Your task to perform on an android device: Go to Google maps Image 0: 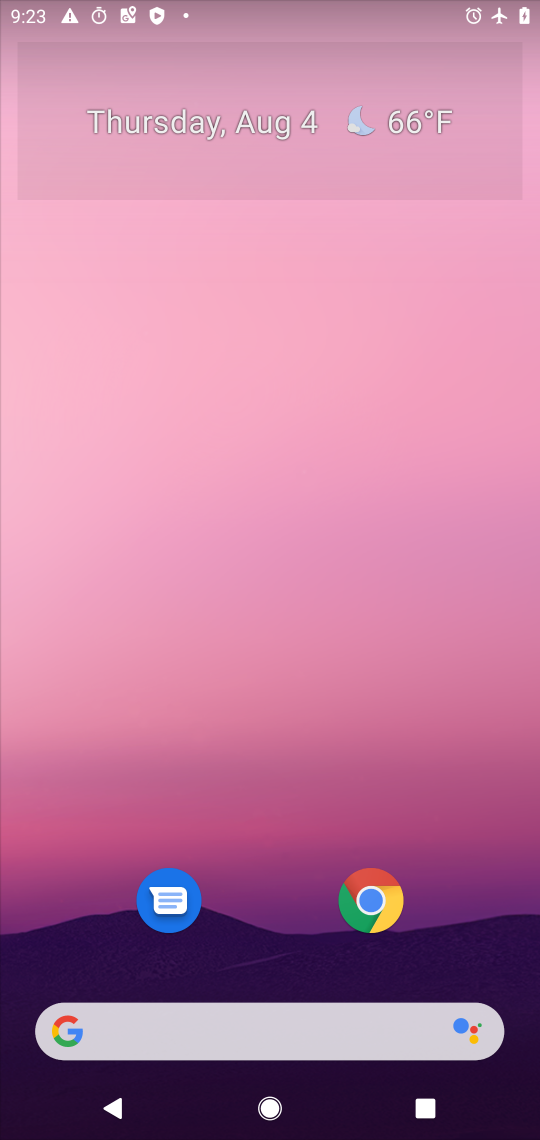
Step 0: drag from (277, 1015) to (248, 175)
Your task to perform on an android device: Go to Google maps Image 1: 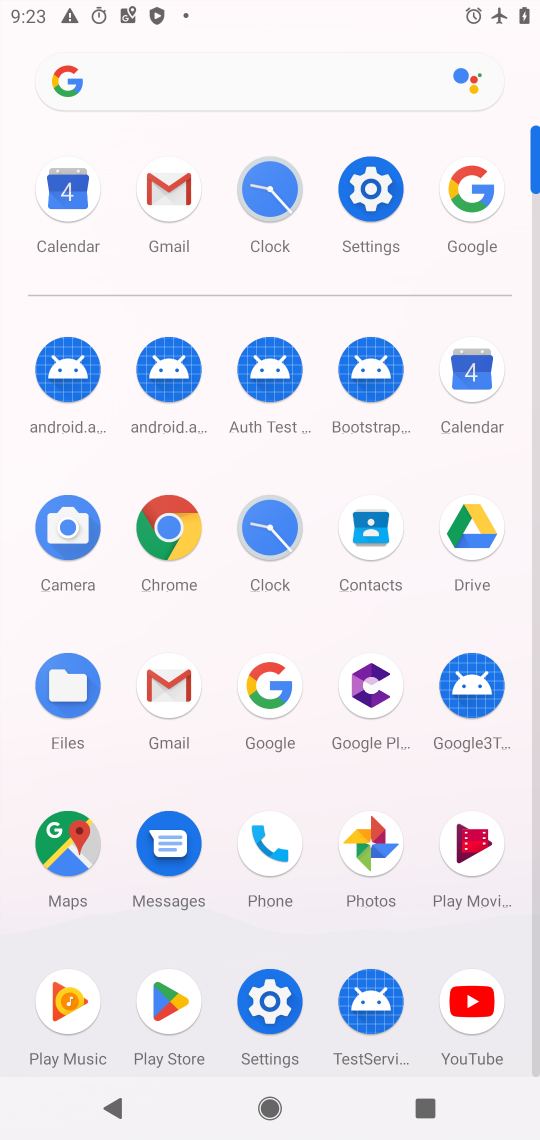
Step 1: click (65, 846)
Your task to perform on an android device: Go to Google maps Image 2: 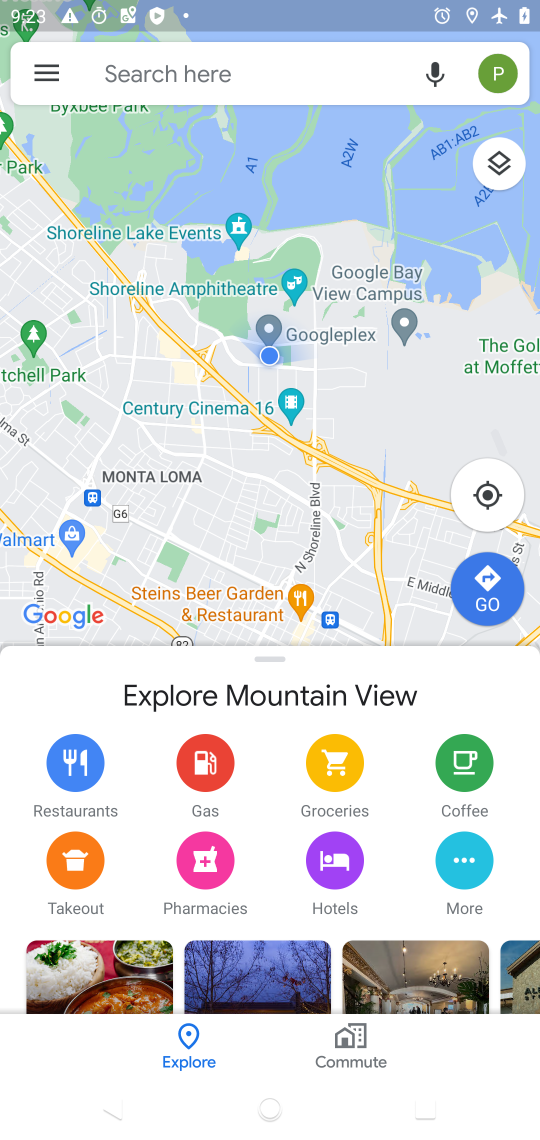
Step 2: task complete